Your task to perform on an android device: turn on data saver in the chrome app Image 0: 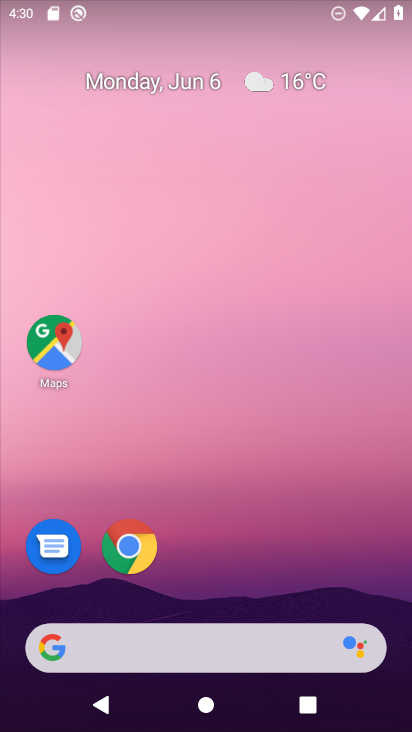
Step 0: click (144, 575)
Your task to perform on an android device: turn on data saver in the chrome app Image 1: 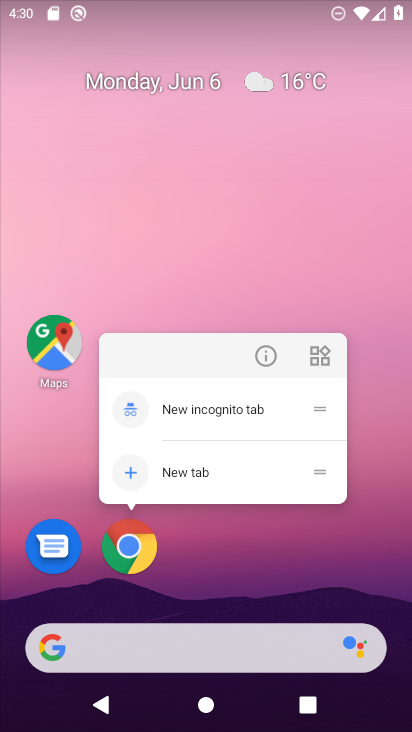
Step 1: click (133, 549)
Your task to perform on an android device: turn on data saver in the chrome app Image 2: 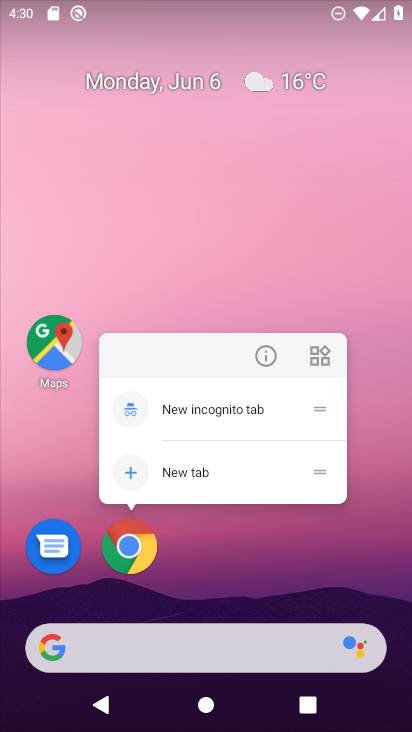
Step 2: click (132, 548)
Your task to perform on an android device: turn on data saver in the chrome app Image 3: 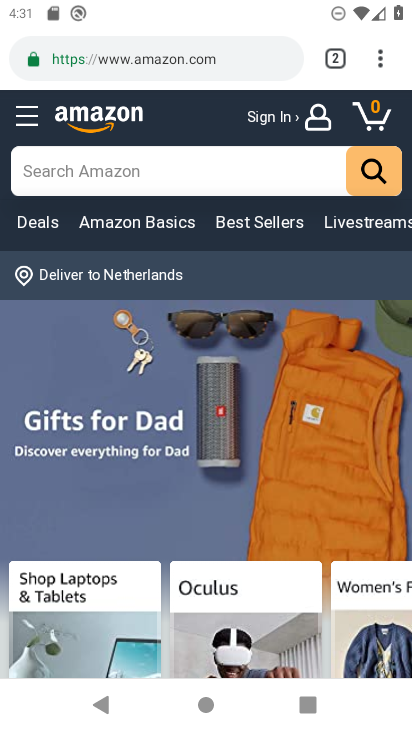
Step 3: drag from (378, 59) to (161, 575)
Your task to perform on an android device: turn on data saver in the chrome app Image 4: 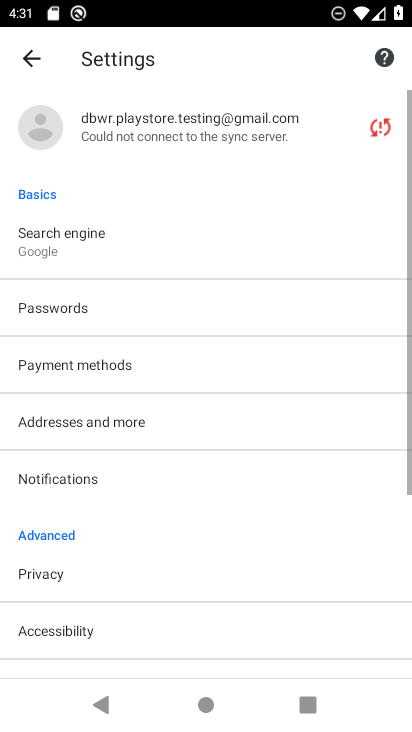
Step 4: drag from (155, 576) to (84, 95)
Your task to perform on an android device: turn on data saver in the chrome app Image 5: 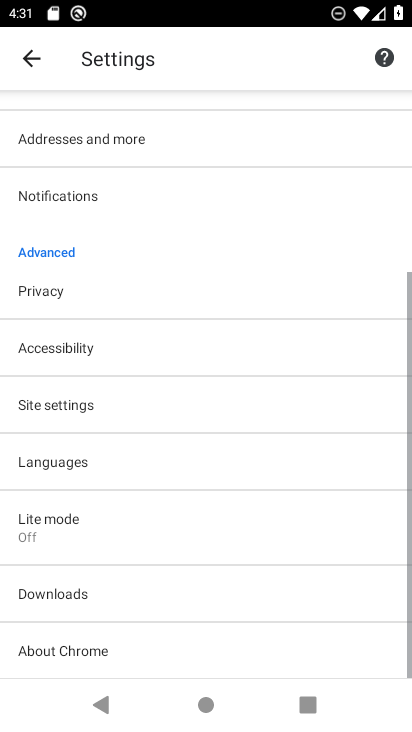
Step 5: click (72, 526)
Your task to perform on an android device: turn on data saver in the chrome app Image 6: 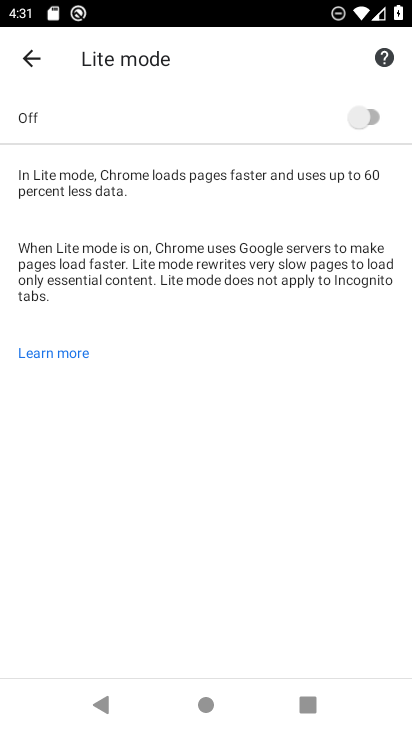
Step 6: click (363, 122)
Your task to perform on an android device: turn on data saver in the chrome app Image 7: 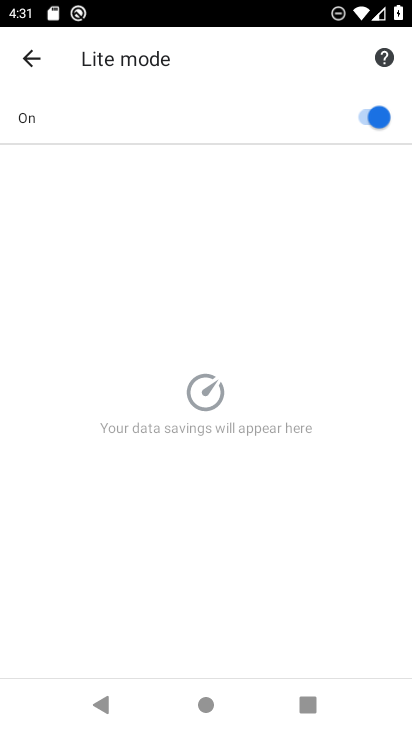
Step 7: task complete